Your task to perform on an android device: check storage Image 0: 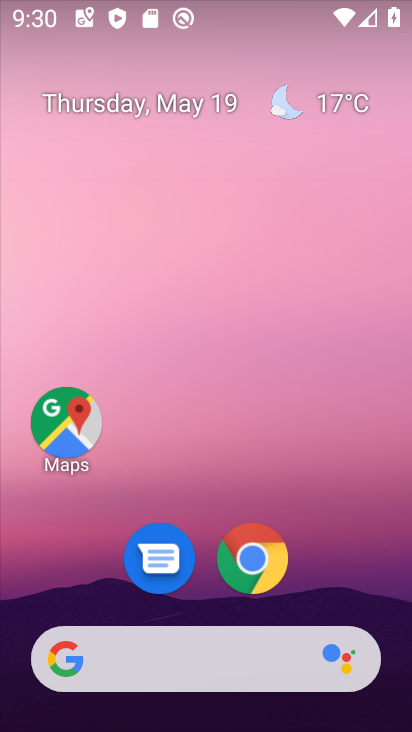
Step 0: drag from (202, 720) to (187, 57)
Your task to perform on an android device: check storage Image 1: 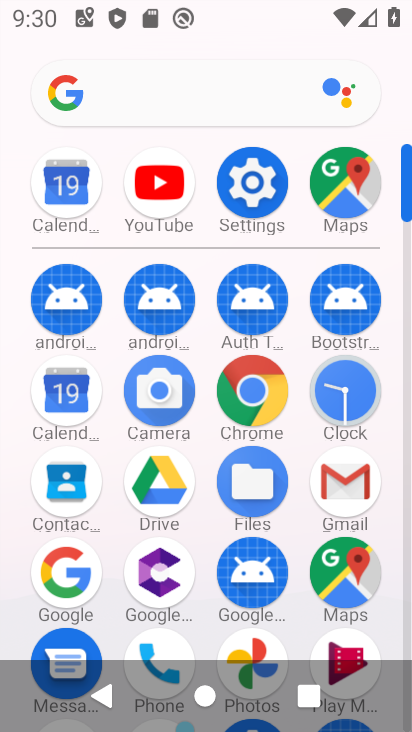
Step 1: click (245, 190)
Your task to perform on an android device: check storage Image 2: 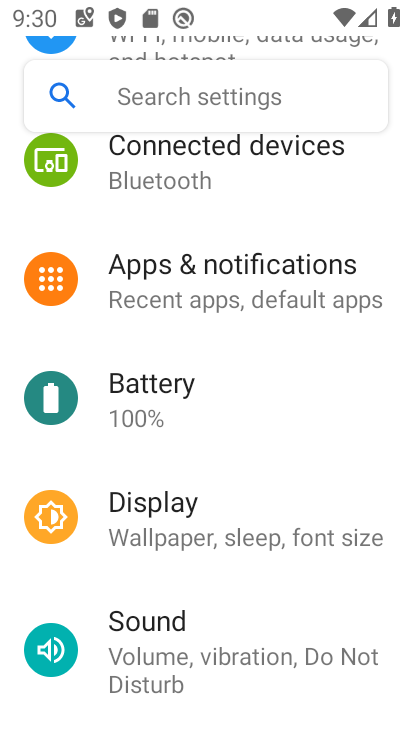
Step 2: drag from (202, 614) to (221, 252)
Your task to perform on an android device: check storage Image 3: 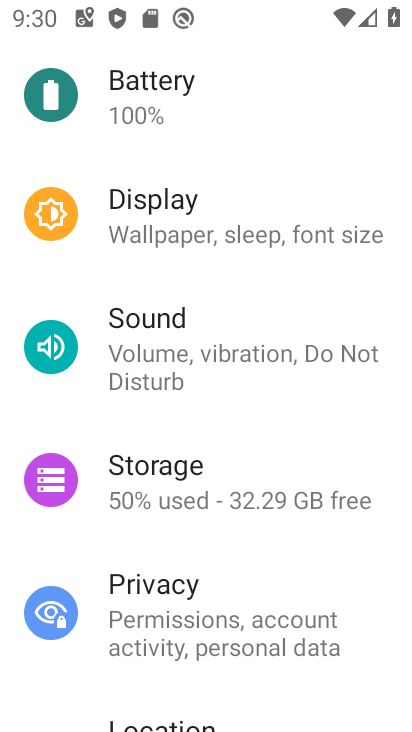
Step 3: click (145, 482)
Your task to perform on an android device: check storage Image 4: 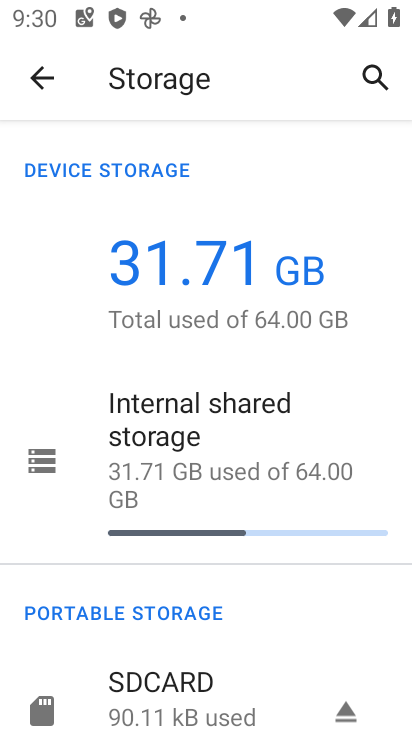
Step 4: task complete